Your task to perform on an android device: change the clock display to analog Image 0: 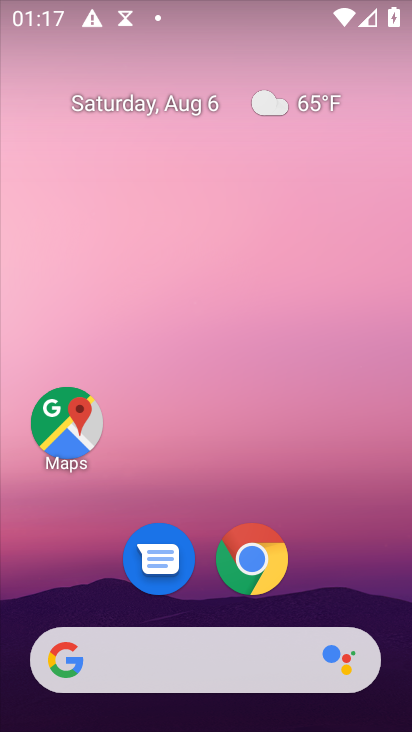
Step 0: drag from (376, 606) to (263, 155)
Your task to perform on an android device: change the clock display to analog Image 1: 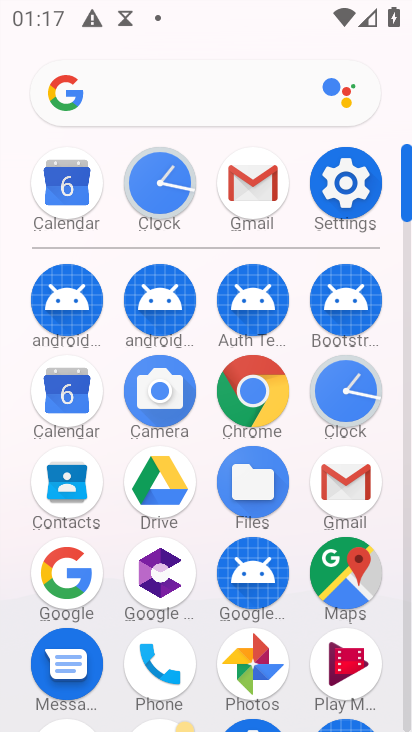
Step 1: click (167, 190)
Your task to perform on an android device: change the clock display to analog Image 2: 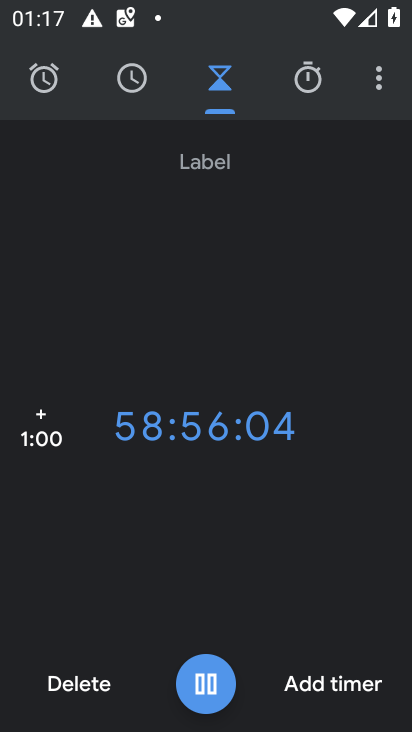
Step 2: click (378, 78)
Your task to perform on an android device: change the clock display to analog Image 3: 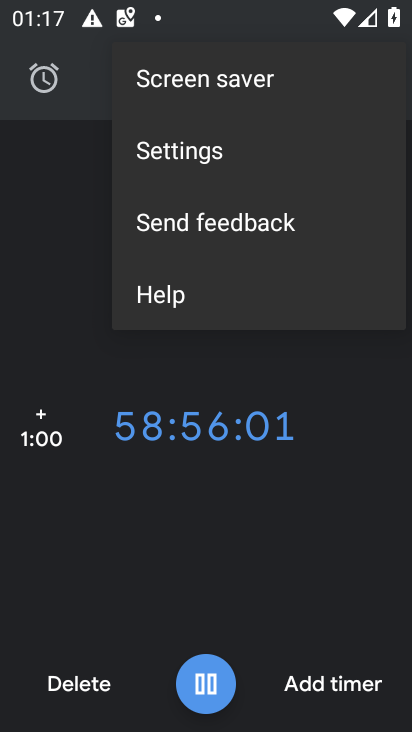
Step 3: click (256, 146)
Your task to perform on an android device: change the clock display to analog Image 4: 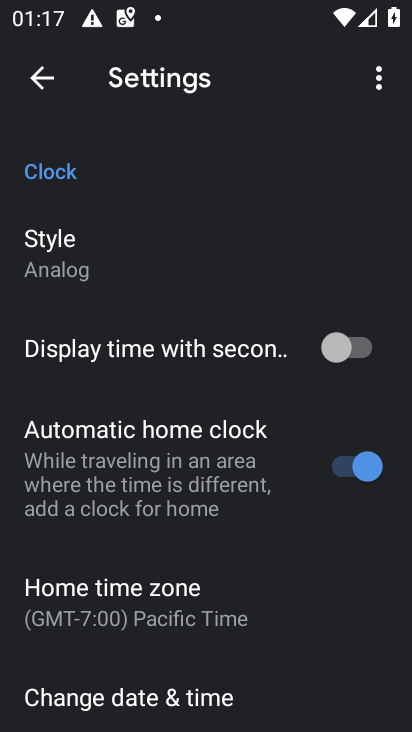
Step 4: click (111, 273)
Your task to perform on an android device: change the clock display to analog Image 5: 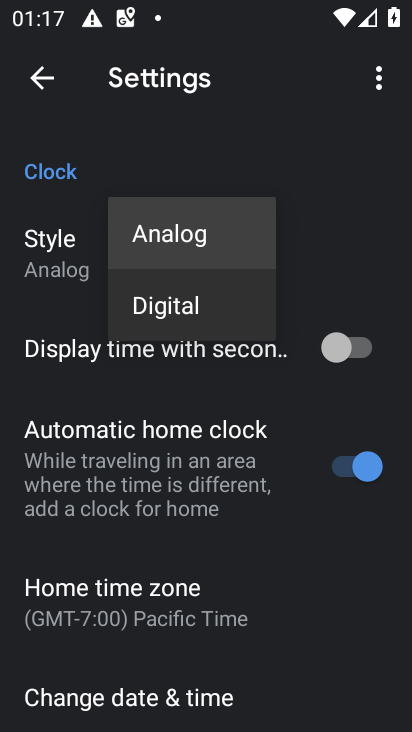
Step 5: task complete